Your task to perform on an android device: Check the weather Image 0: 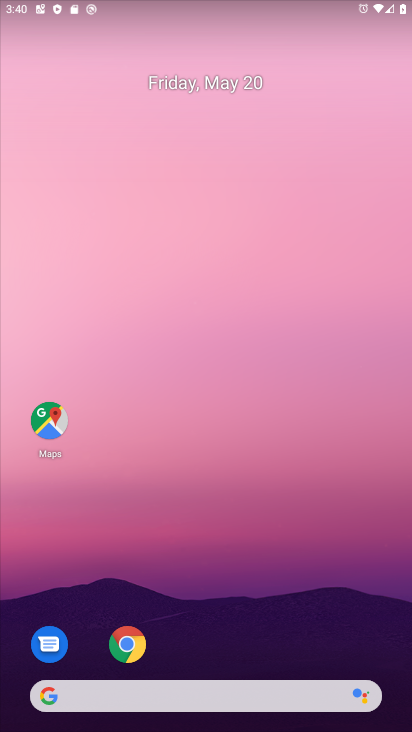
Step 0: click (283, 624)
Your task to perform on an android device: Check the weather Image 1: 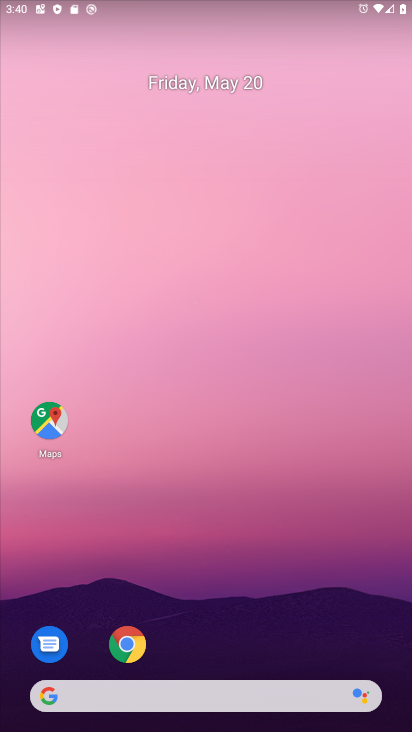
Step 1: click (263, 685)
Your task to perform on an android device: Check the weather Image 2: 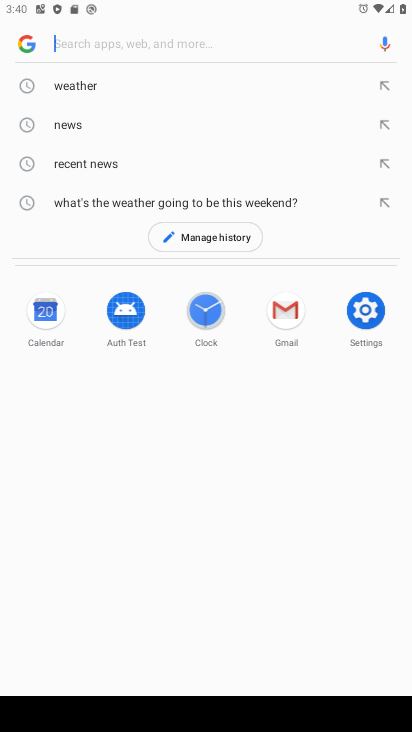
Step 2: click (166, 79)
Your task to perform on an android device: Check the weather Image 3: 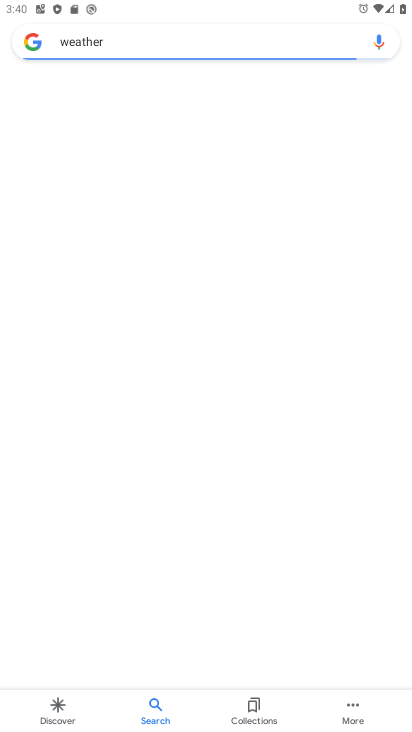
Step 3: task complete